Your task to perform on an android device: Open Reddit.com Image 0: 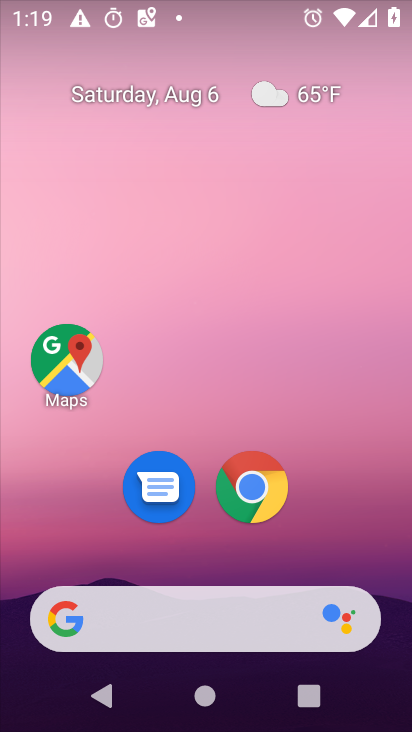
Step 0: click (260, 495)
Your task to perform on an android device: Open Reddit.com Image 1: 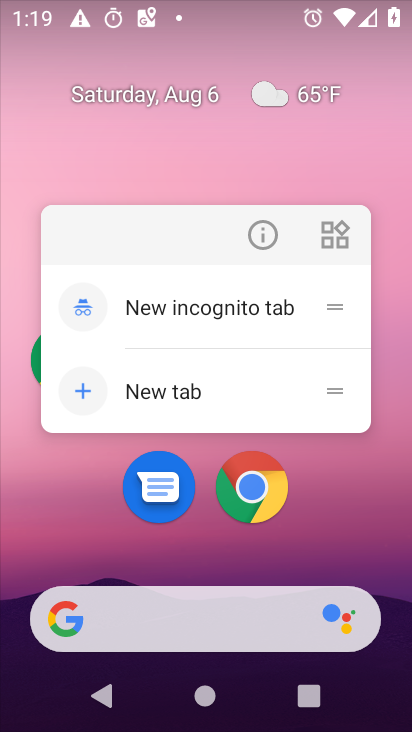
Step 1: click (260, 495)
Your task to perform on an android device: Open Reddit.com Image 2: 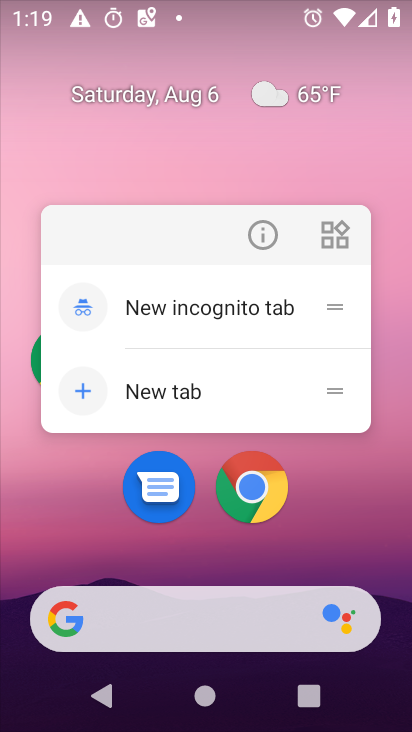
Step 2: click (255, 482)
Your task to perform on an android device: Open Reddit.com Image 3: 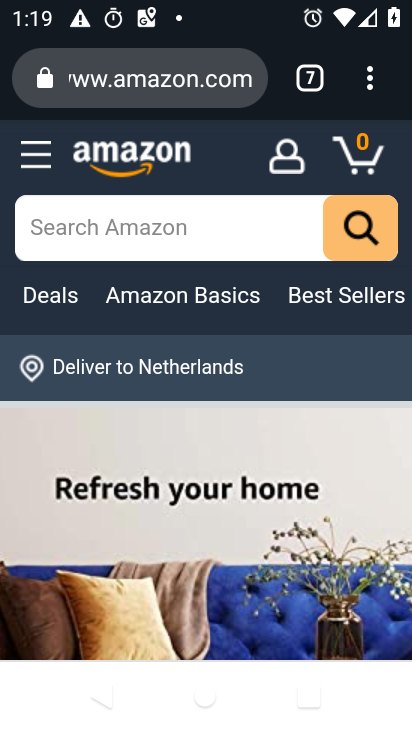
Step 3: click (312, 68)
Your task to perform on an android device: Open Reddit.com Image 4: 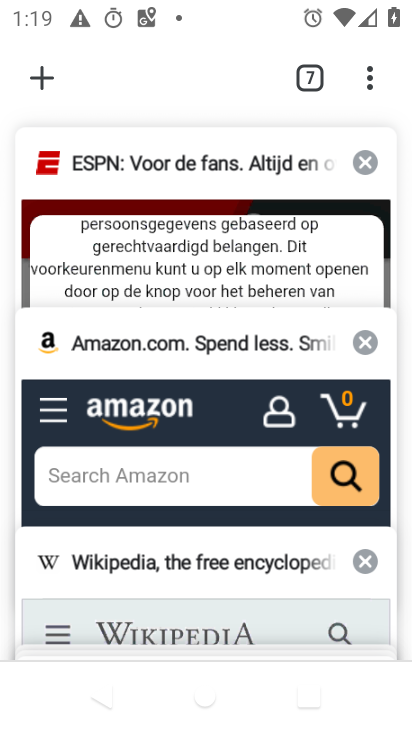
Step 4: drag from (246, 134) to (175, 630)
Your task to perform on an android device: Open Reddit.com Image 5: 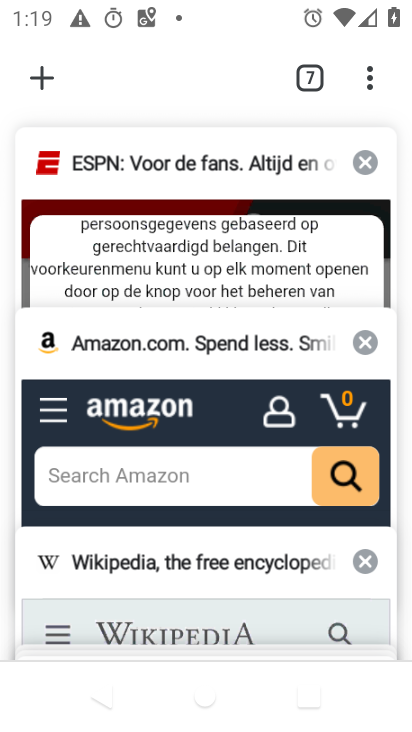
Step 5: drag from (156, 518) to (218, 125)
Your task to perform on an android device: Open Reddit.com Image 6: 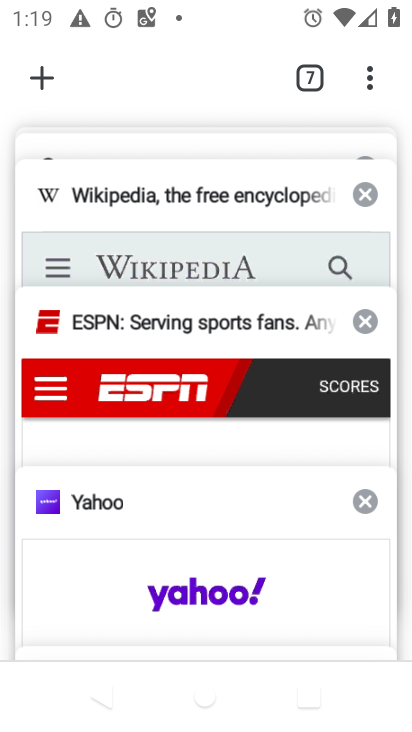
Step 6: click (59, 74)
Your task to perform on an android device: Open Reddit.com Image 7: 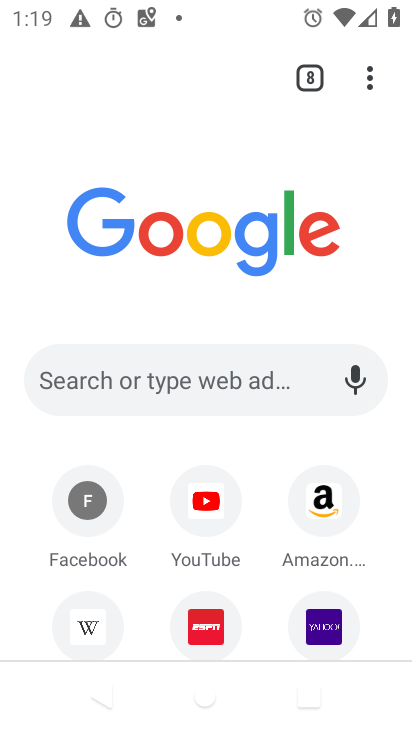
Step 7: drag from (127, 629) to (162, 664)
Your task to perform on an android device: Open Reddit.com Image 8: 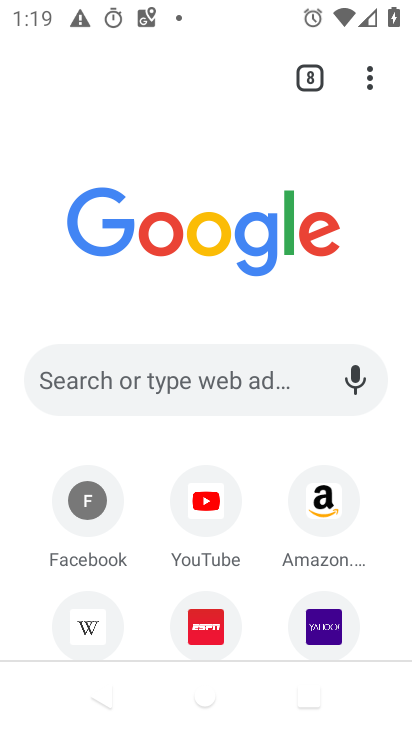
Step 8: click (149, 388)
Your task to perform on an android device: Open Reddit.com Image 9: 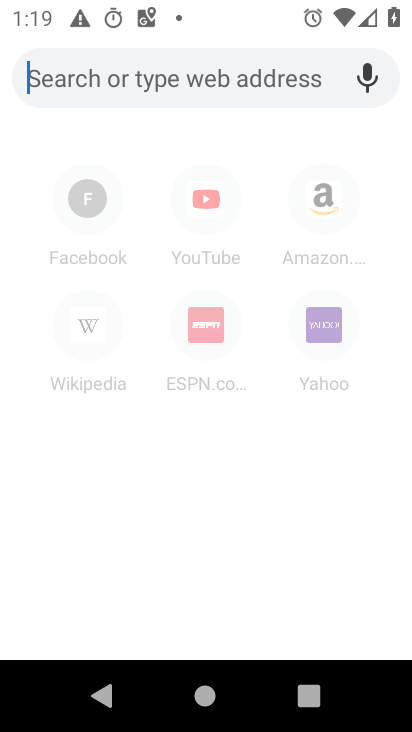
Step 9: type "reddit.com"
Your task to perform on an android device: Open Reddit.com Image 10: 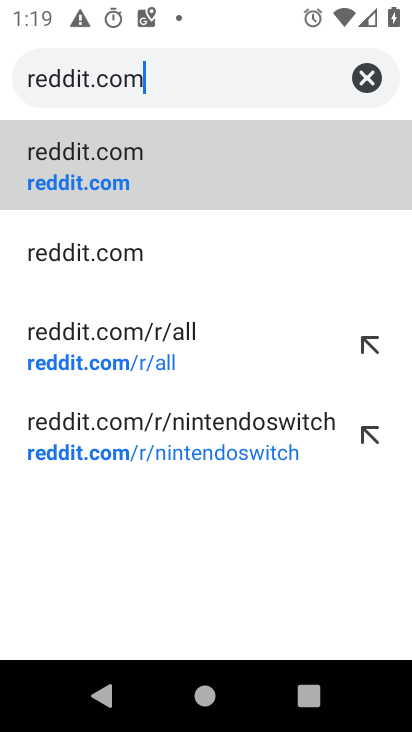
Step 10: click (126, 174)
Your task to perform on an android device: Open Reddit.com Image 11: 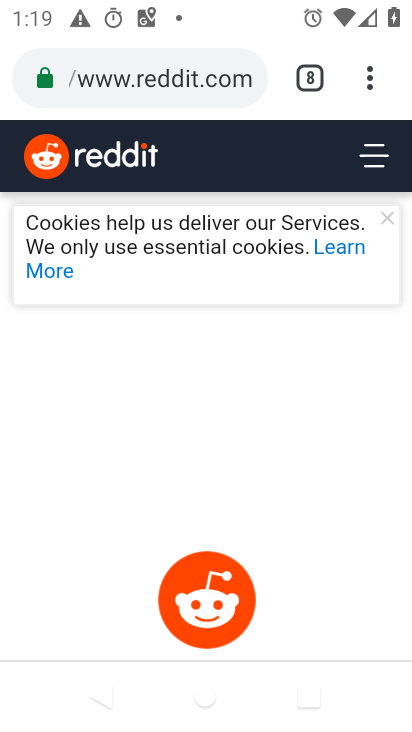
Step 11: task complete